Your task to perform on an android device: change alarm snooze length Image 0: 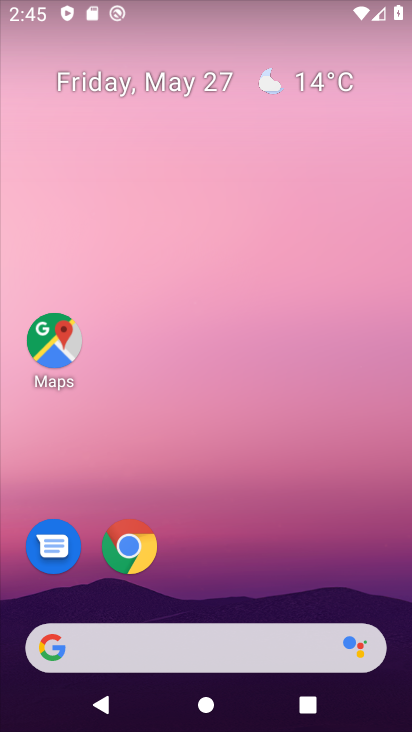
Step 0: drag from (228, 598) to (333, 221)
Your task to perform on an android device: change alarm snooze length Image 1: 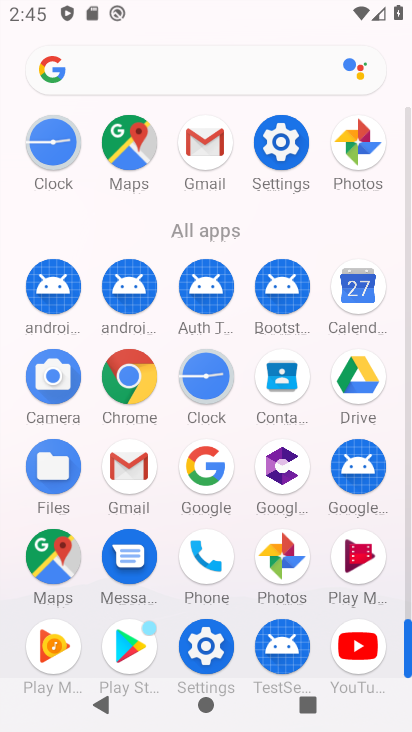
Step 1: click (217, 381)
Your task to perform on an android device: change alarm snooze length Image 2: 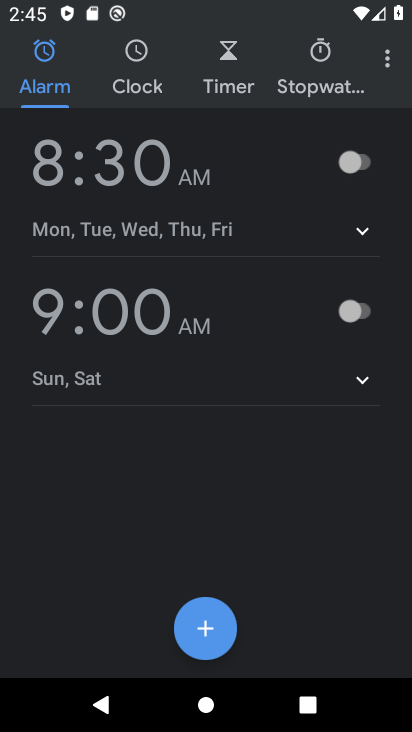
Step 2: click (393, 73)
Your task to perform on an android device: change alarm snooze length Image 3: 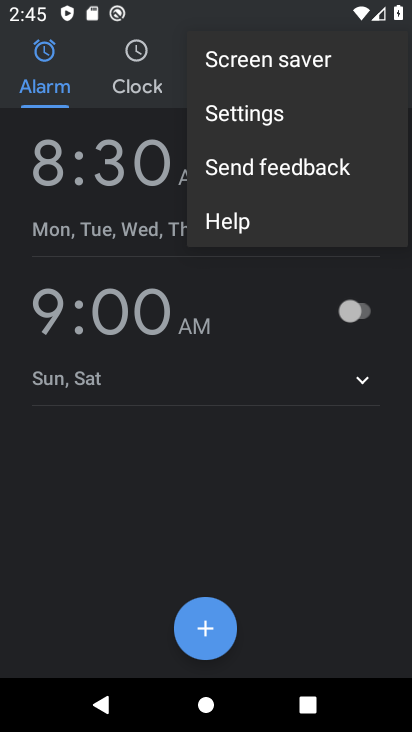
Step 3: click (347, 126)
Your task to perform on an android device: change alarm snooze length Image 4: 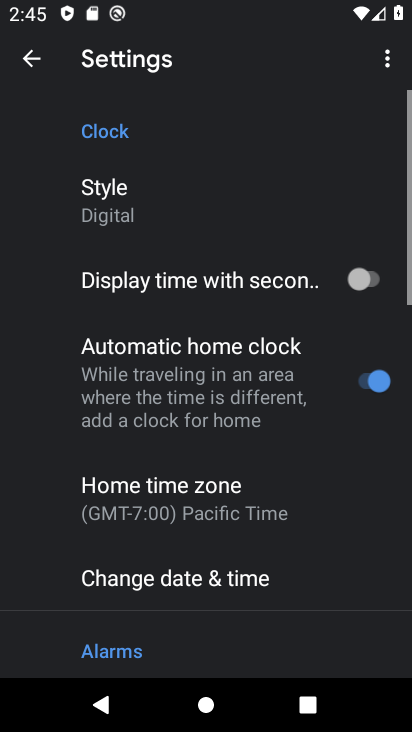
Step 4: drag from (204, 492) to (344, 122)
Your task to perform on an android device: change alarm snooze length Image 5: 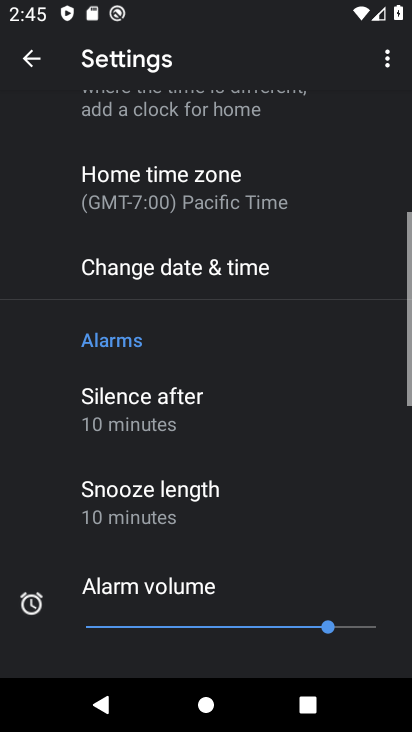
Step 5: drag from (194, 511) to (267, 331)
Your task to perform on an android device: change alarm snooze length Image 6: 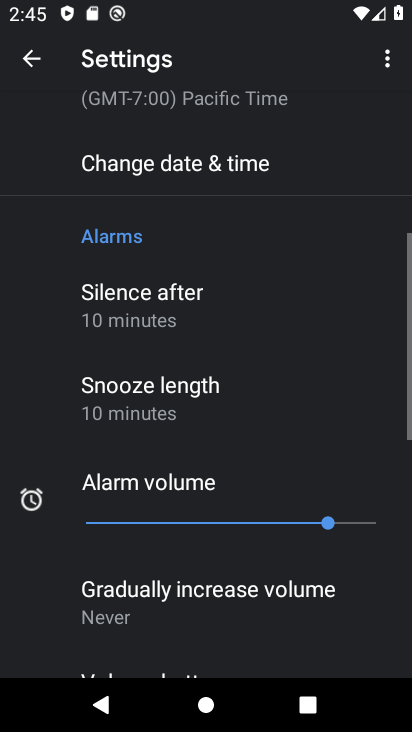
Step 6: click (234, 385)
Your task to perform on an android device: change alarm snooze length Image 7: 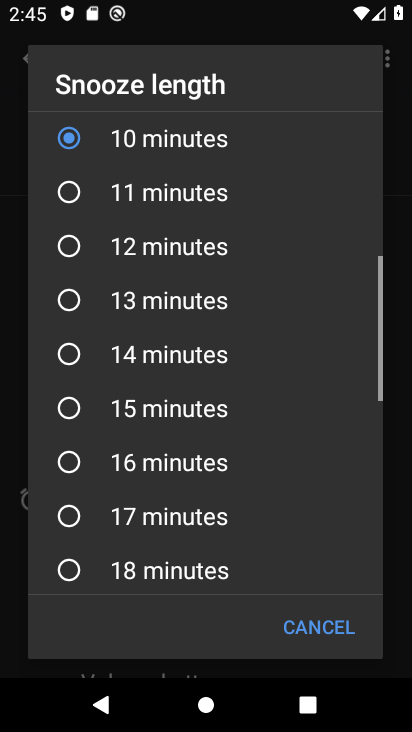
Step 7: click (217, 557)
Your task to perform on an android device: change alarm snooze length Image 8: 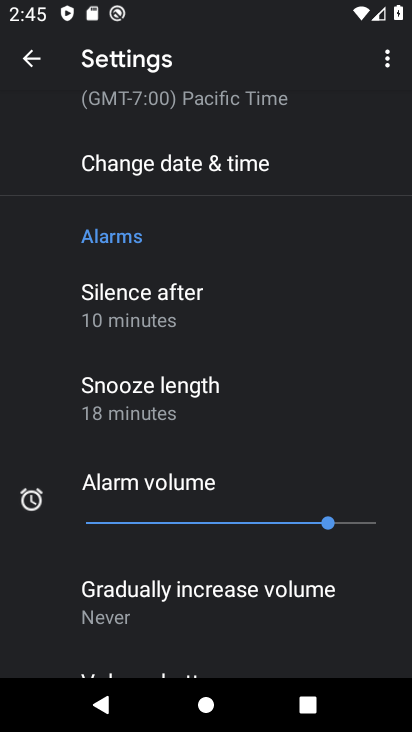
Step 8: task complete